Your task to perform on an android device: search for starred emails in the gmail app Image 0: 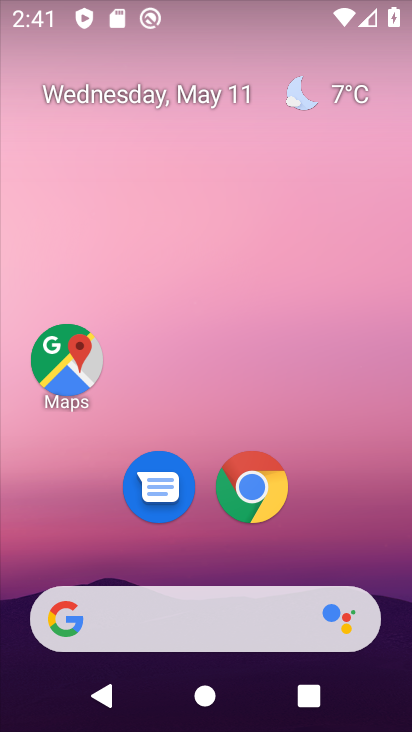
Step 0: drag from (332, 571) to (340, 0)
Your task to perform on an android device: search for starred emails in the gmail app Image 1: 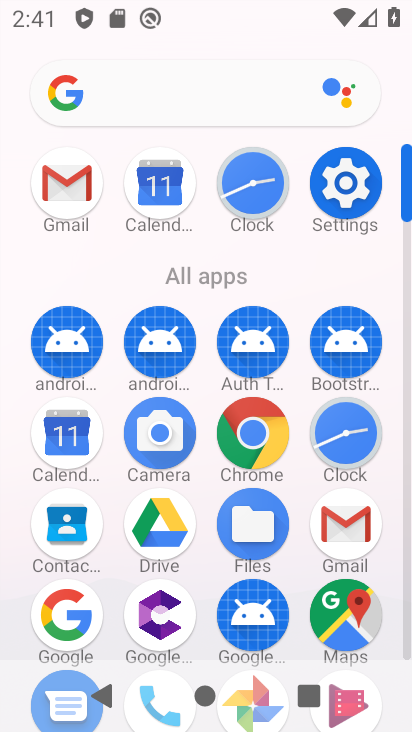
Step 1: click (339, 517)
Your task to perform on an android device: search for starred emails in the gmail app Image 2: 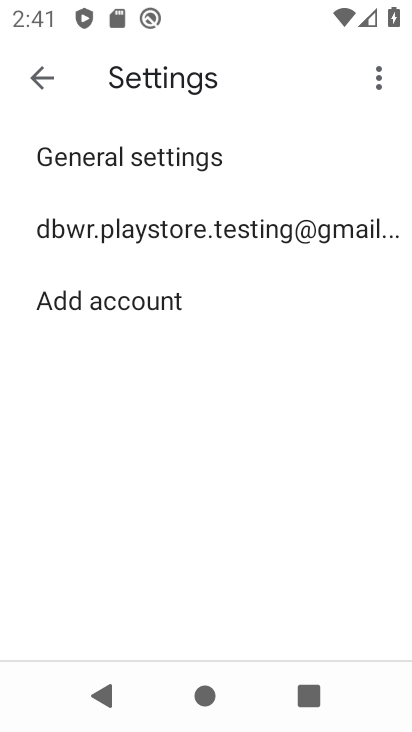
Step 2: press back button
Your task to perform on an android device: search for starred emails in the gmail app Image 3: 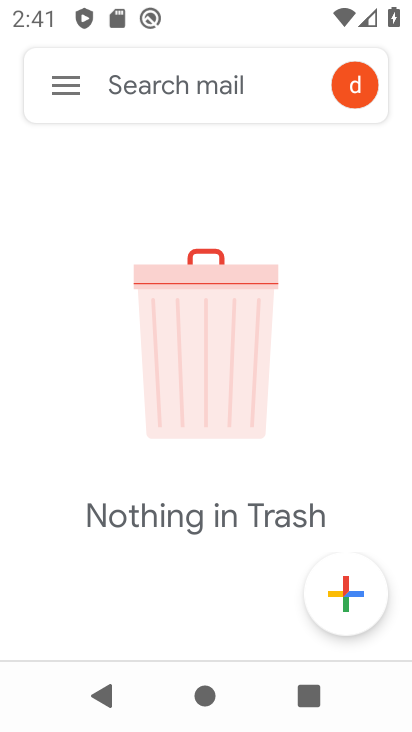
Step 3: click (75, 86)
Your task to perform on an android device: search for starred emails in the gmail app Image 4: 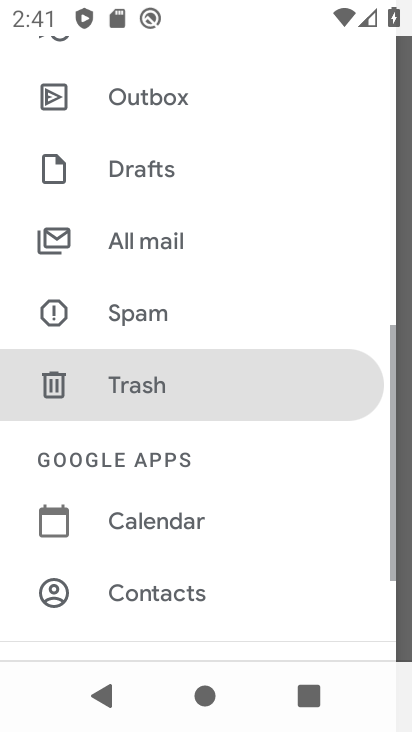
Step 4: drag from (192, 197) to (226, 620)
Your task to perform on an android device: search for starred emails in the gmail app Image 5: 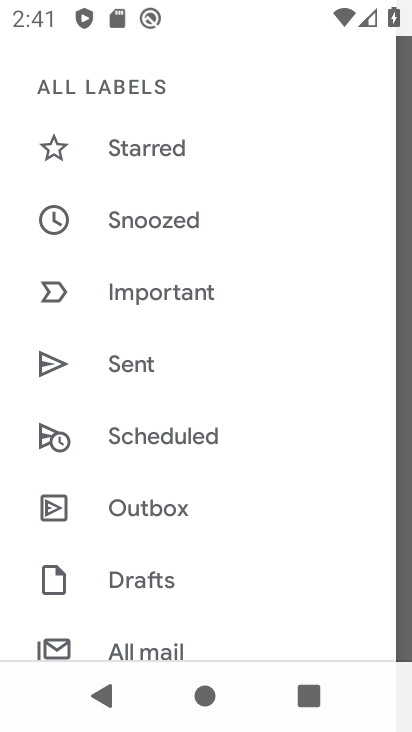
Step 5: click (160, 146)
Your task to perform on an android device: search for starred emails in the gmail app Image 6: 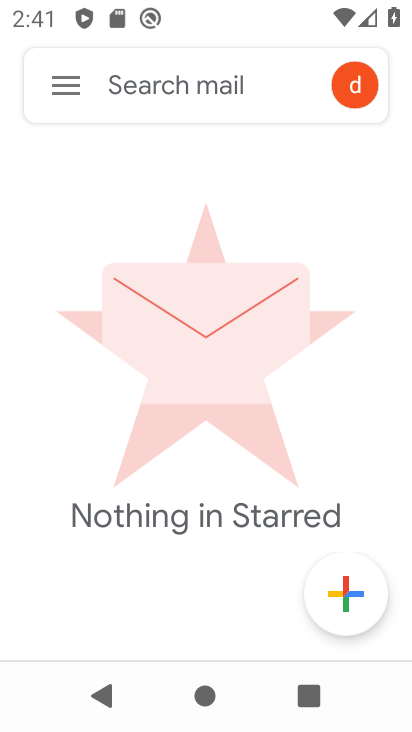
Step 6: task complete